Your task to perform on an android device: Go to Reddit.com Image 0: 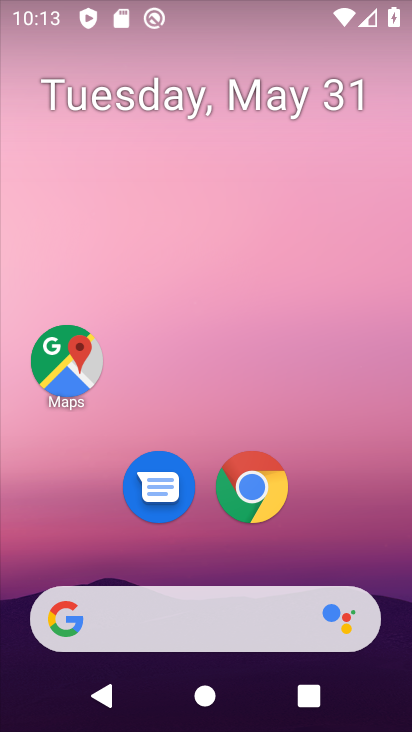
Step 0: click (193, 622)
Your task to perform on an android device: Go to Reddit.com Image 1: 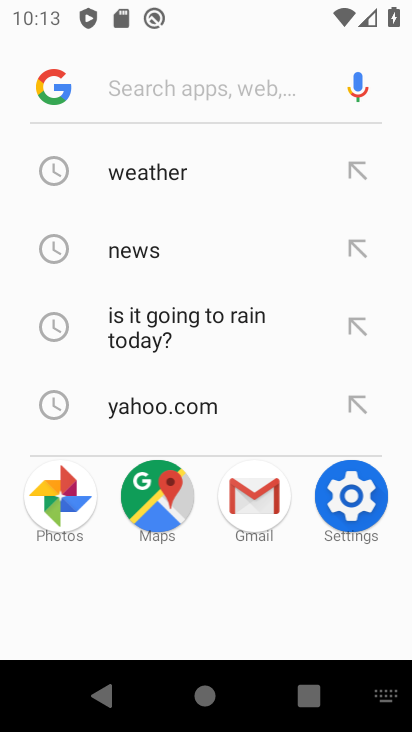
Step 1: type "Reddit.com"
Your task to perform on an android device: Go to Reddit.com Image 2: 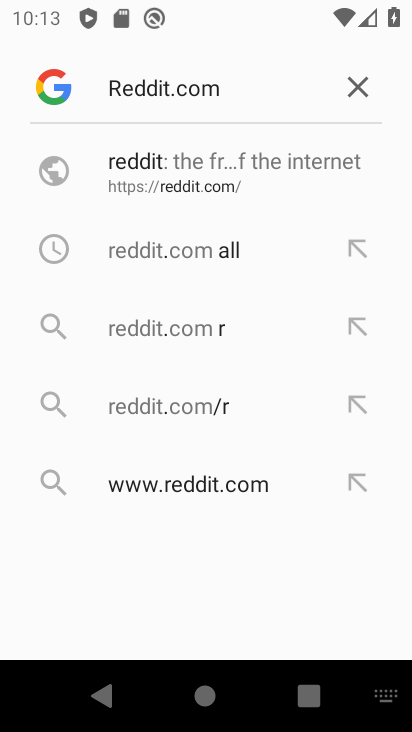
Step 2: click (201, 172)
Your task to perform on an android device: Go to Reddit.com Image 3: 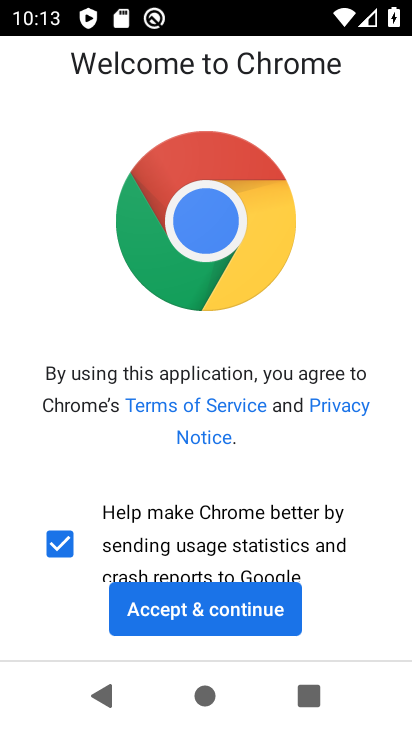
Step 3: click (256, 616)
Your task to perform on an android device: Go to Reddit.com Image 4: 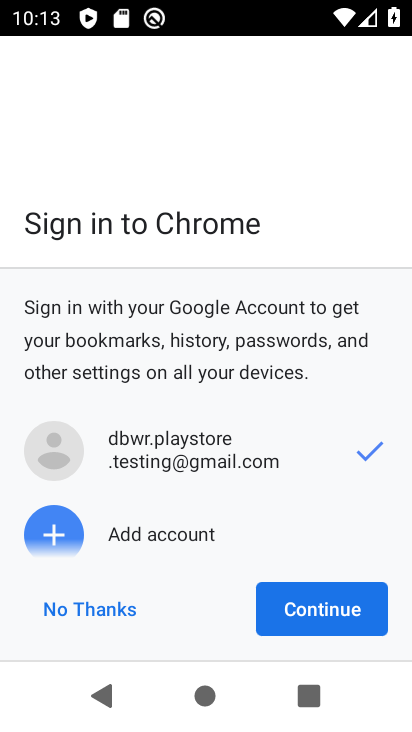
Step 4: click (340, 636)
Your task to perform on an android device: Go to Reddit.com Image 5: 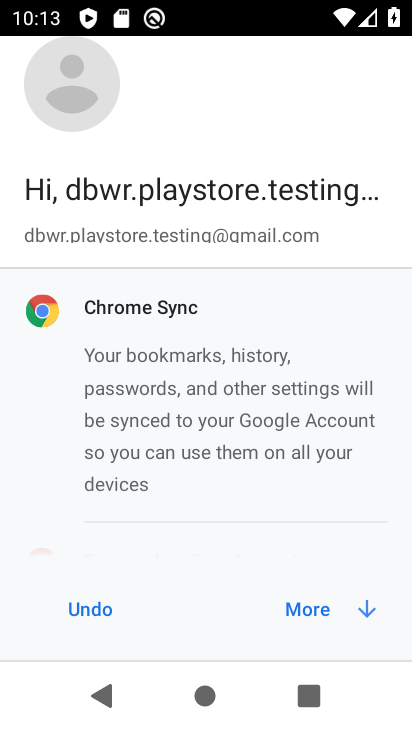
Step 5: click (340, 636)
Your task to perform on an android device: Go to Reddit.com Image 6: 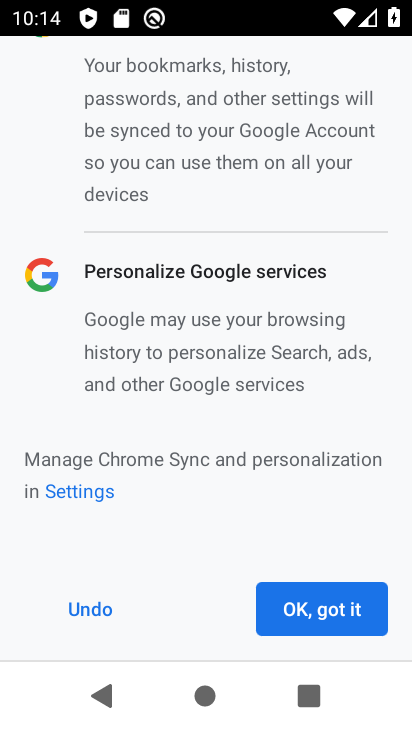
Step 6: click (340, 636)
Your task to perform on an android device: Go to Reddit.com Image 7: 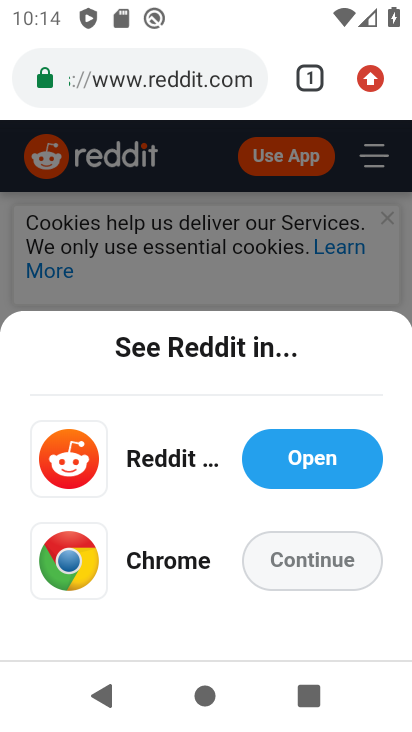
Step 7: click (336, 563)
Your task to perform on an android device: Go to Reddit.com Image 8: 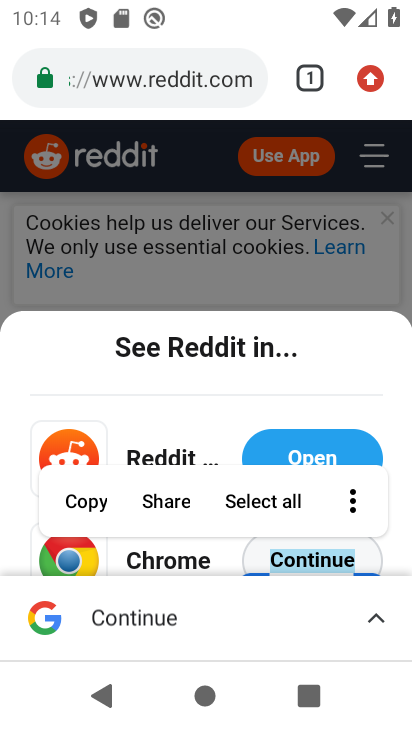
Step 8: click (343, 550)
Your task to perform on an android device: Go to Reddit.com Image 9: 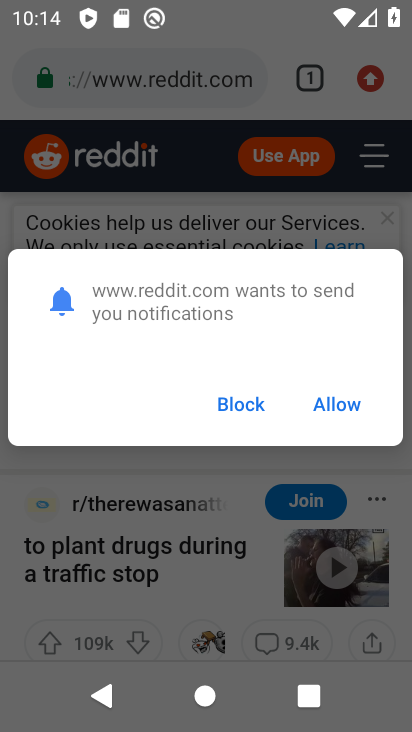
Step 9: click (365, 411)
Your task to perform on an android device: Go to Reddit.com Image 10: 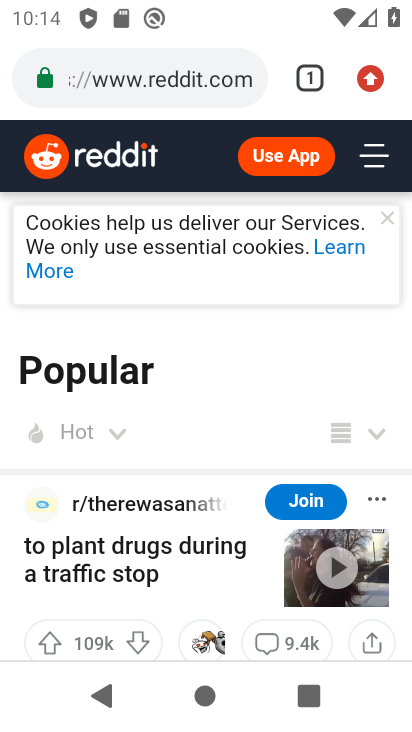
Step 10: task complete